Your task to perform on an android device: turn on location history Image 0: 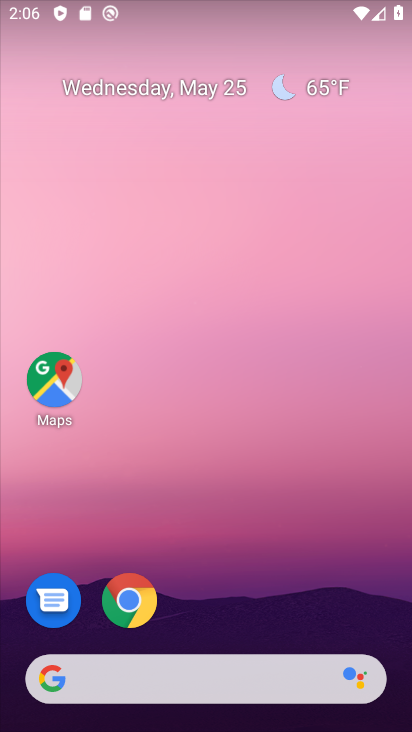
Step 0: drag from (306, 600) to (299, 226)
Your task to perform on an android device: turn on location history Image 1: 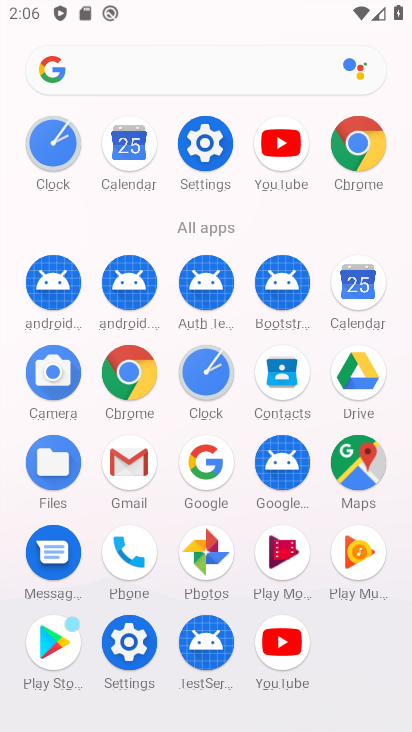
Step 1: click (196, 147)
Your task to perform on an android device: turn on location history Image 2: 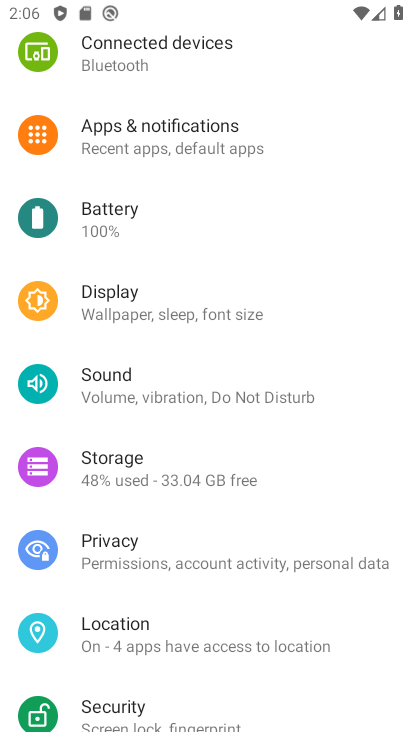
Step 2: drag from (135, 566) to (216, 124)
Your task to perform on an android device: turn on location history Image 3: 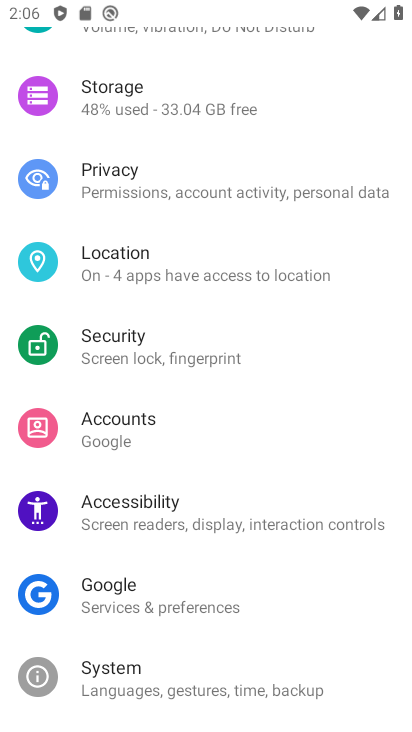
Step 3: click (117, 257)
Your task to perform on an android device: turn on location history Image 4: 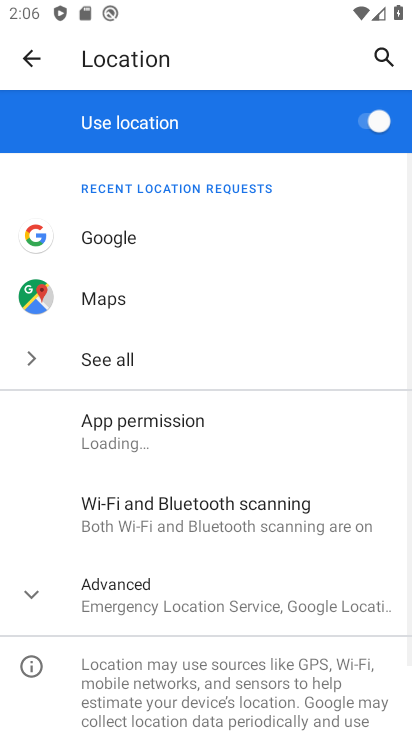
Step 4: click (178, 605)
Your task to perform on an android device: turn on location history Image 5: 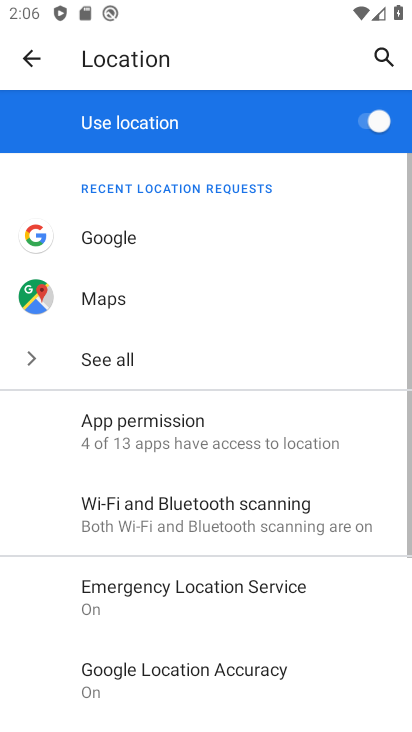
Step 5: drag from (204, 451) to (287, 145)
Your task to perform on an android device: turn on location history Image 6: 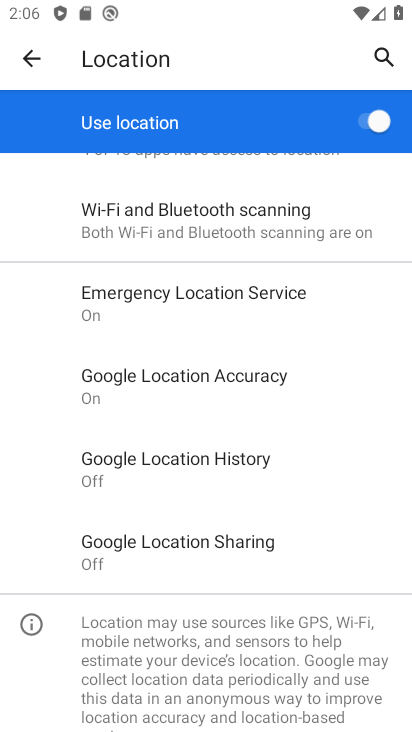
Step 6: click (216, 456)
Your task to perform on an android device: turn on location history Image 7: 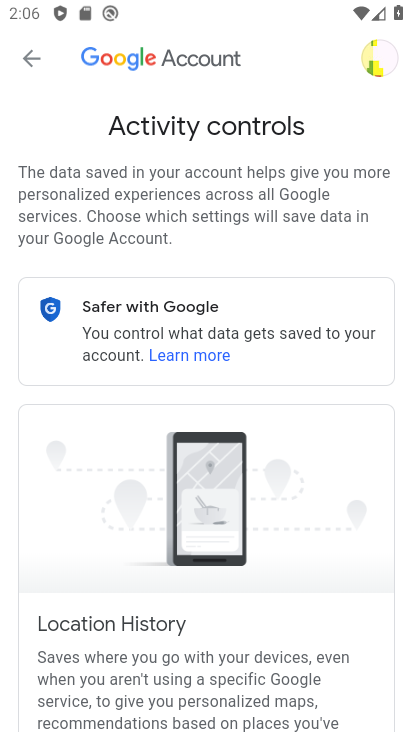
Step 7: drag from (235, 531) to (268, 177)
Your task to perform on an android device: turn on location history Image 8: 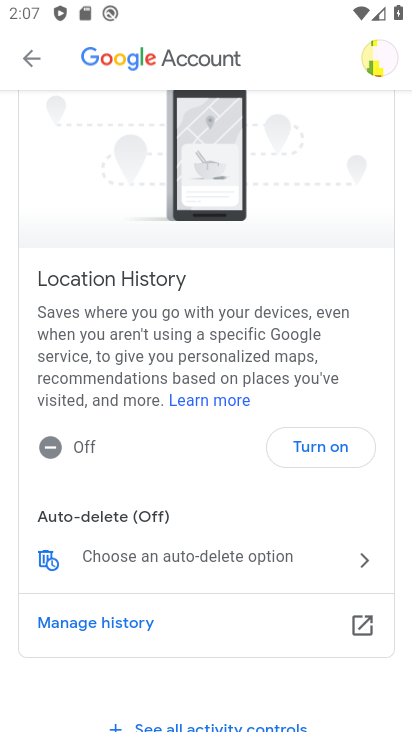
Step 8: click (301, 459)
Your task to perform on an android device: turn on location history Image 9: 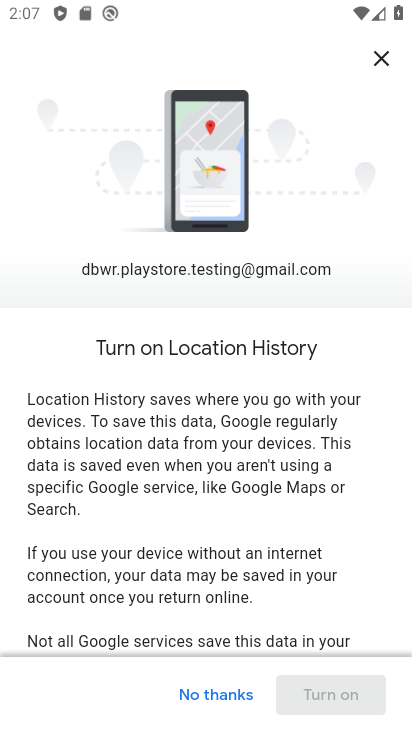
Step 9: drag from (245, 603) to (283, 196)
Your task to perform on an android device: turn on location history Image 10: 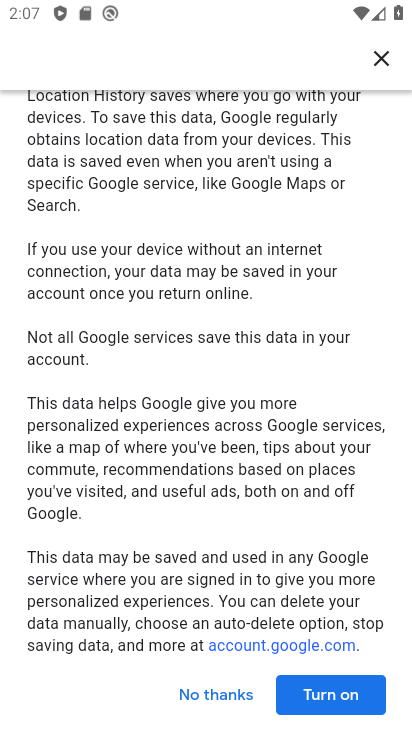
Step 10: click (356, 692)
Your task to perform on an android device: turn on location history Image 11: 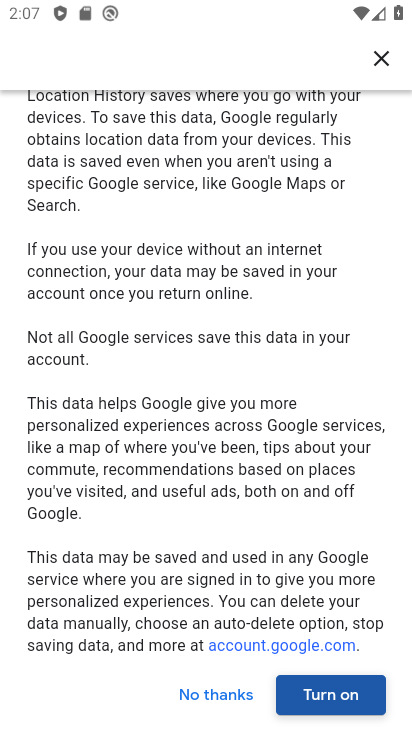
Step 11: click (319, 693)
Your task to perform on an android device: turn on location history Image 12: 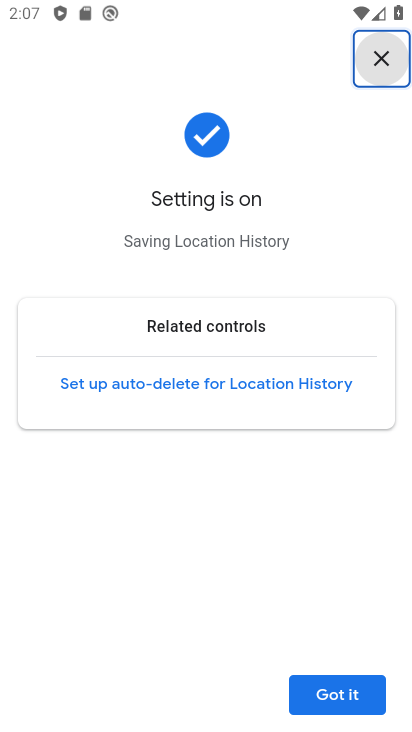
Step 12: task complete